Your task to perform on an android device: What's the weather today? Image 0: 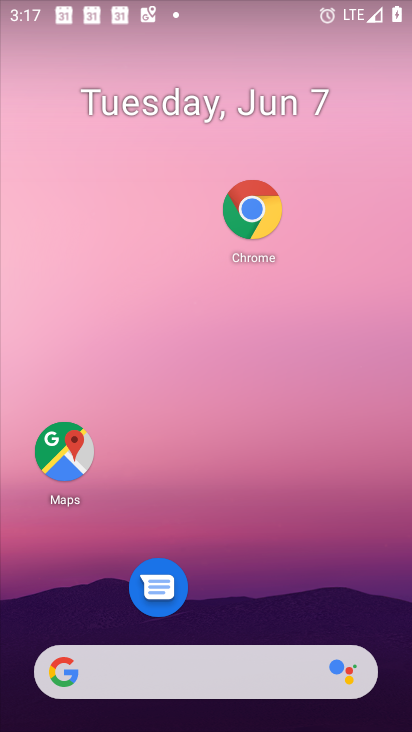
Step 0: drag from (269, 478) to (395, 142)
Your task to perform on an android device: What's the weather today? Image 1: 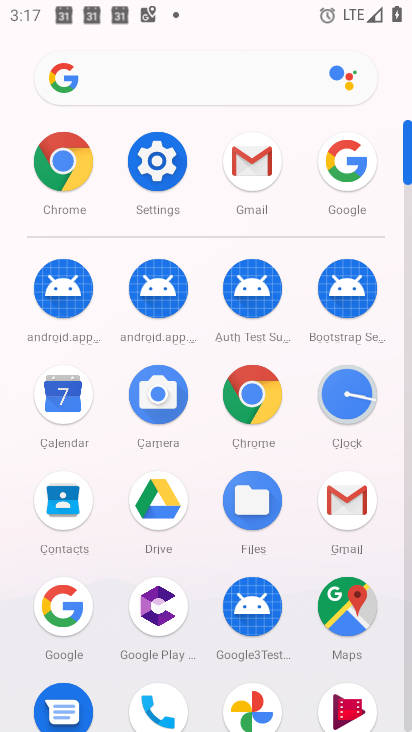
Step 1: click (76, 629)
Your task to perform on an android device: What's the weather today? Image 2: 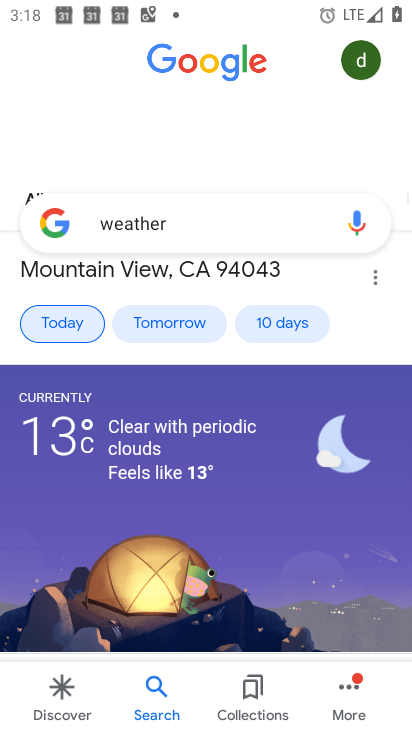
Step 2: task complete